Your task to perform on an android device: toggle improve location accuracy Image 0: 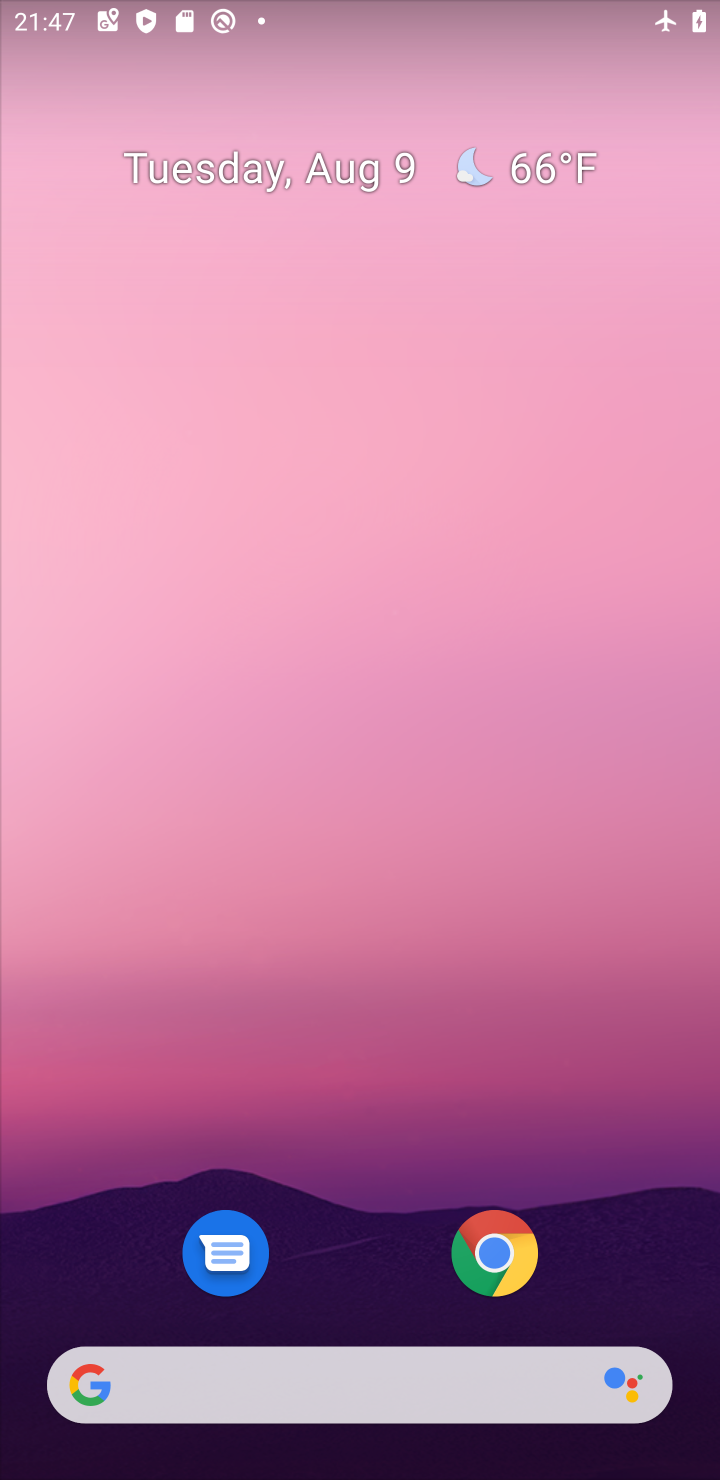
Step 0: drag from (306, 951) to (225, 240)
Your task to perform on an android device: toggle improve location accuracy Image 1: 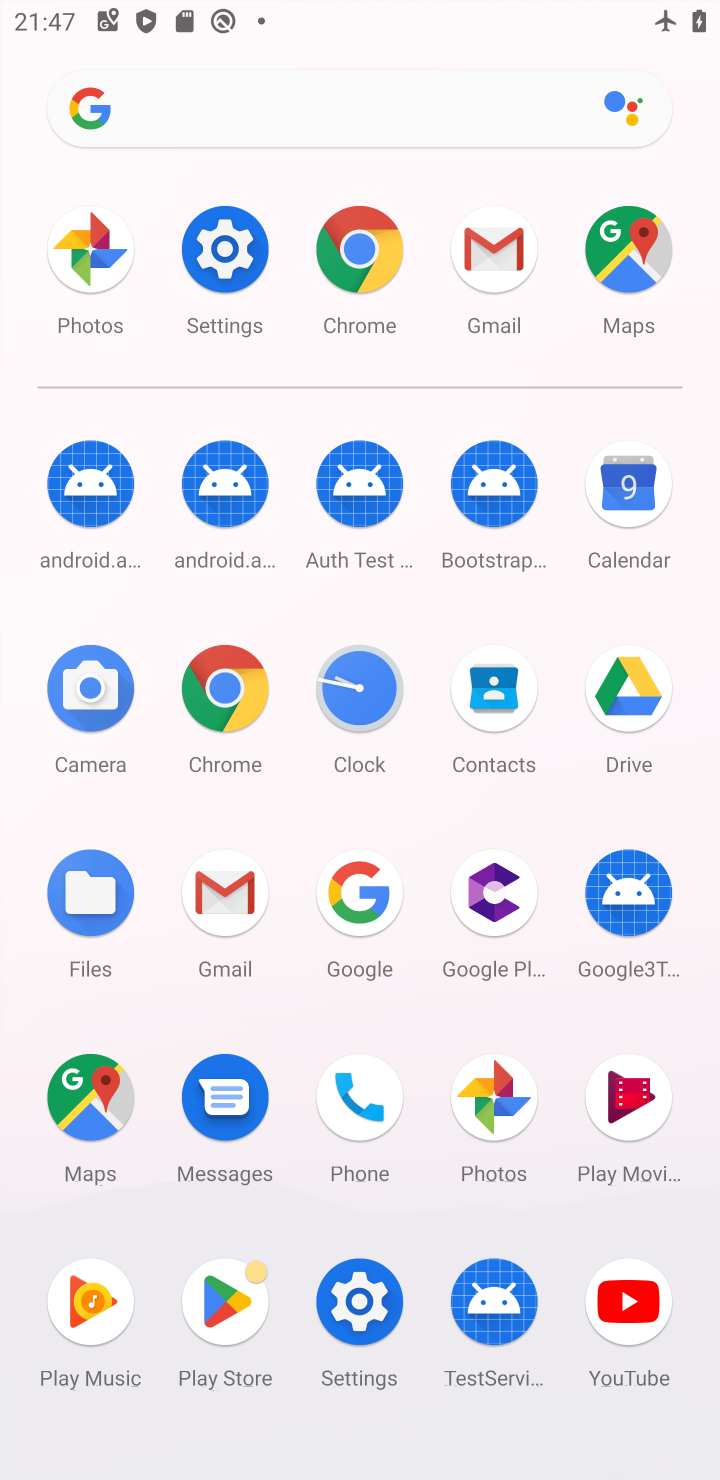
Step 1: click (349, 1282)
Your task to perform on an android device: toggle improve location accuracy Image 2: 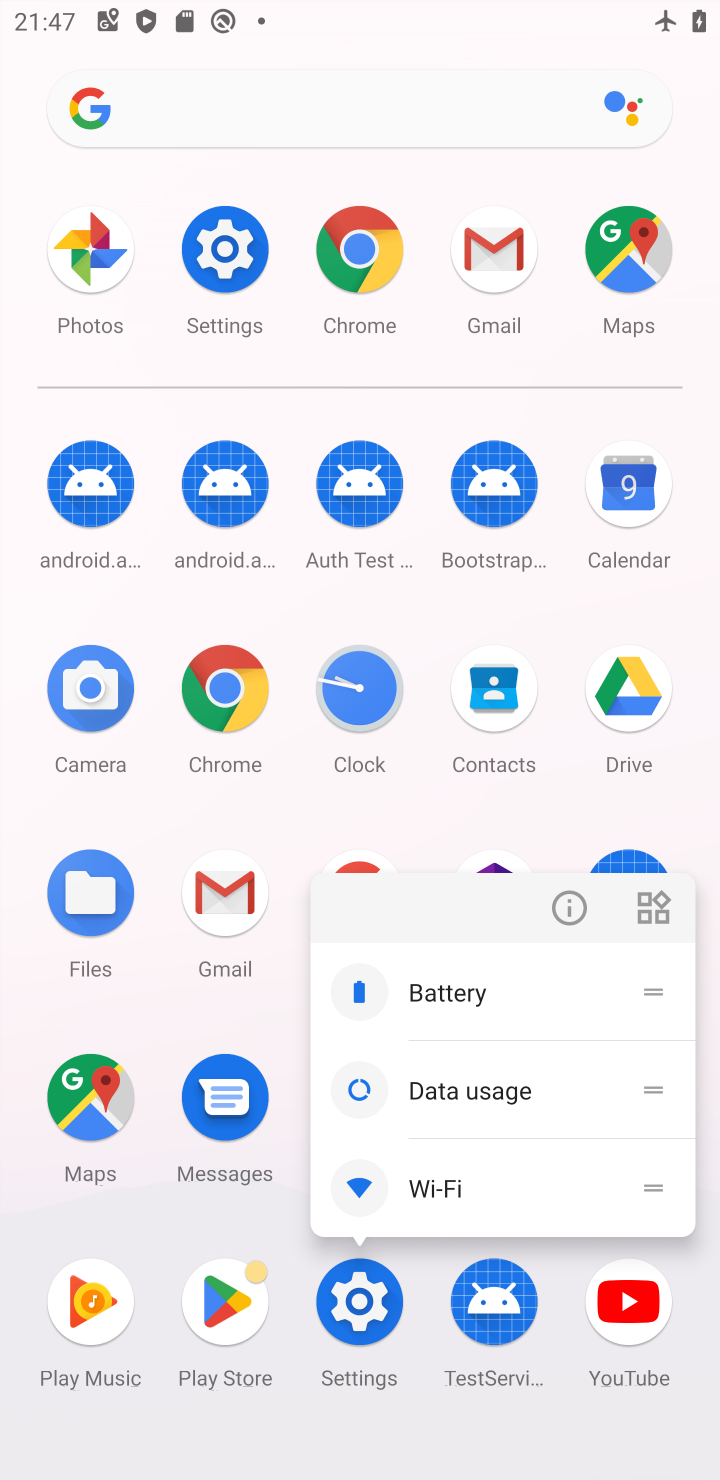
Step 2: click (358, 1295)
Your task to perform on an android device: toggle improve location accuracy Image 3: 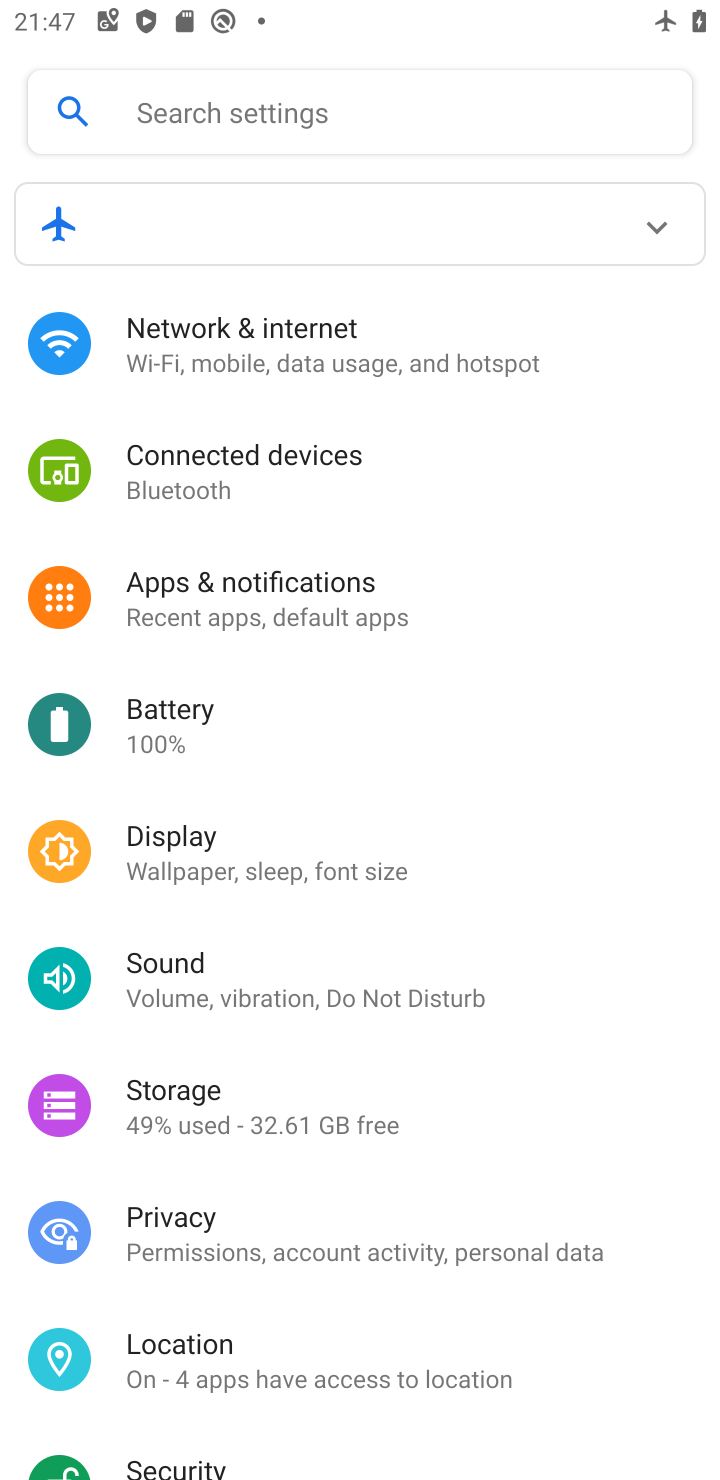
Step 3: click (278, 1369)
Your task to perform on an android device: toggle improve location accuracy Image 4: 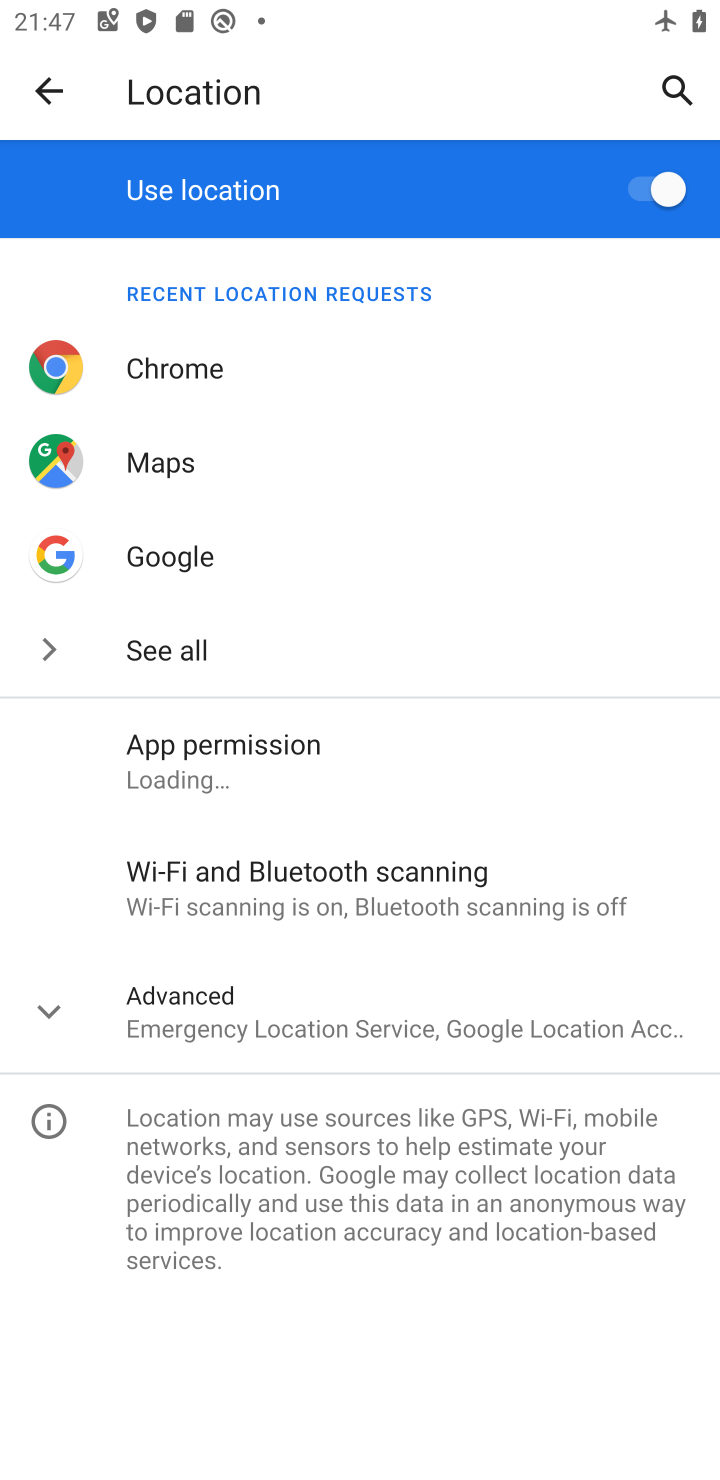
Step 4: click (259, 1041)
Your task to perform on an android device: toggle improve location accuracy Image 5: 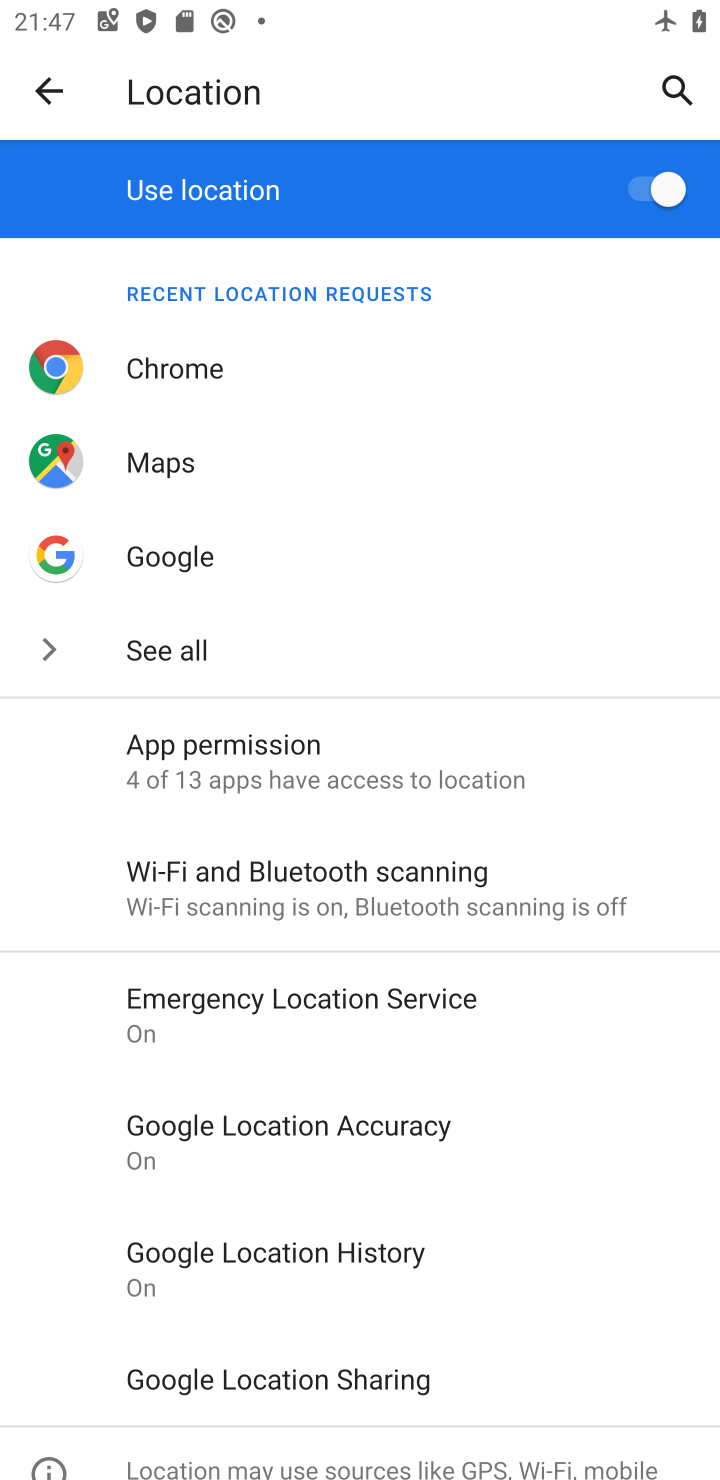
Step 5: click (327, 1112)
Your task to perform on an android device: toggle improve location accuracy Image 6: 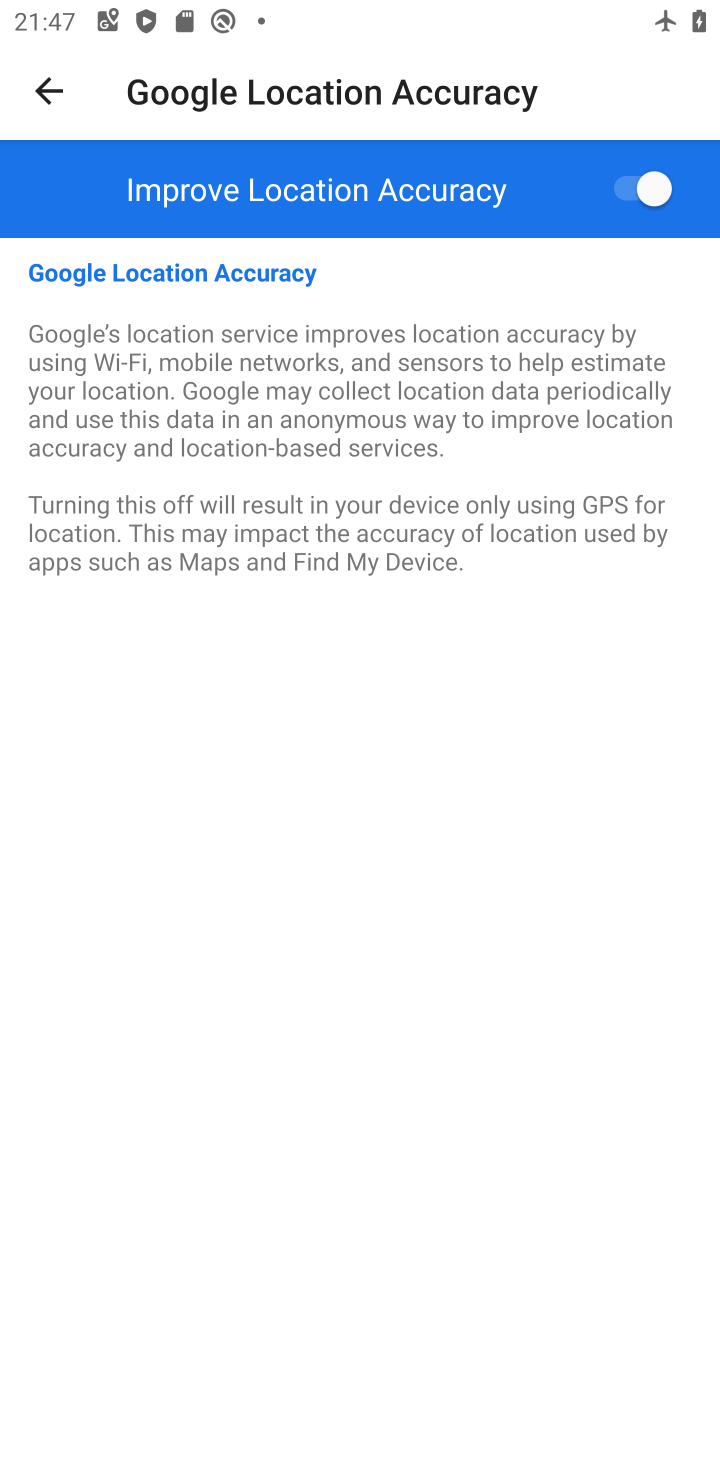
Step 6: click (591, 175)
Your task to perform on an android device: toggle improve location accuracy Image 7: 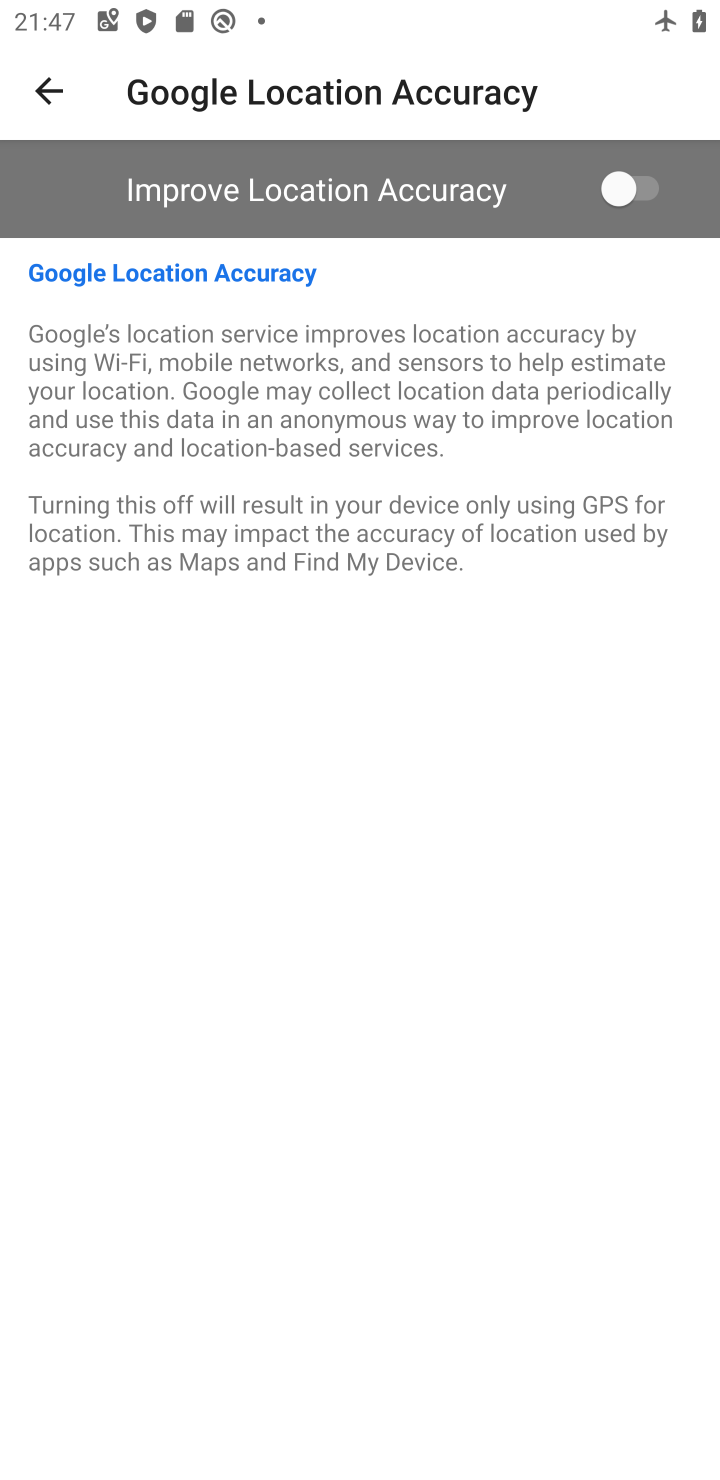
Step 7: task complete